Your task to perform on an android device: change the clock display to analog Image 0: 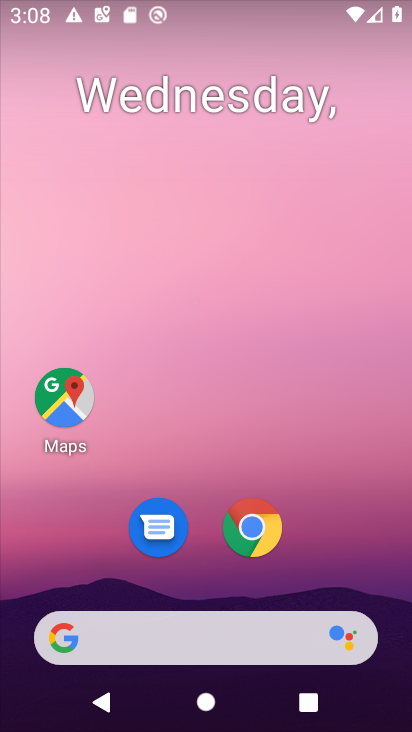
Step 0: drag from (329, 543) to (90, 40)
Your task to perform on an android device: change the clock display to analog Image 1: 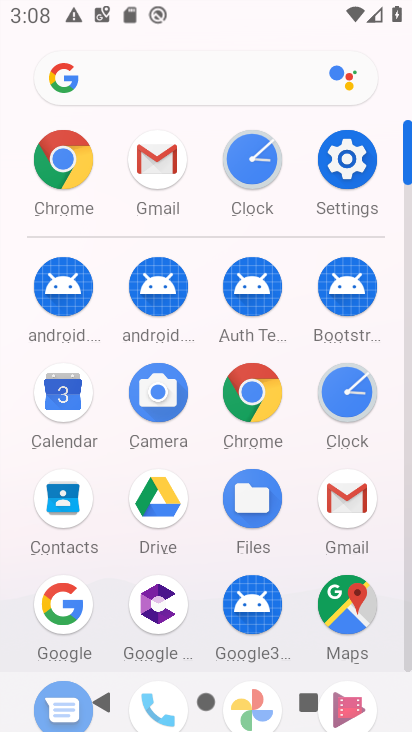
Step 1: click (342, 373)
Your task to perform on an android device: change the clock display to analog Image 2: 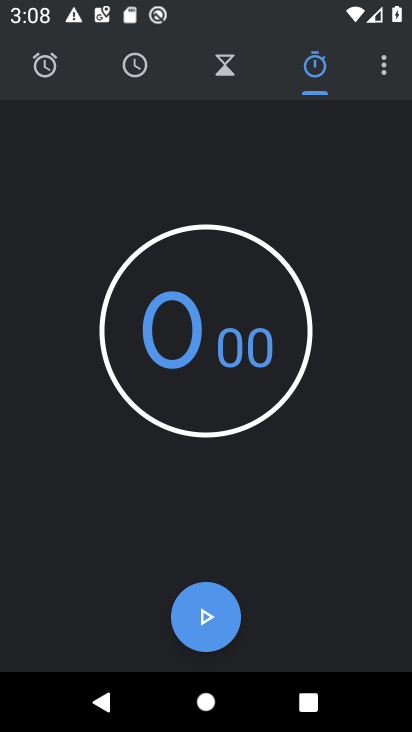
Step 2: click (378, 61)
Your task to perform on an android device: change the clock display to analog Image 3: 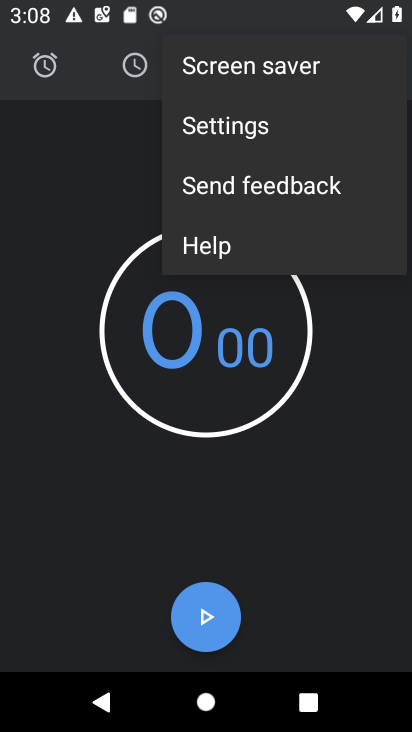
Step 3: click (268, 131)
Your task to perform on an android device: change the clock display to analog Image 4: 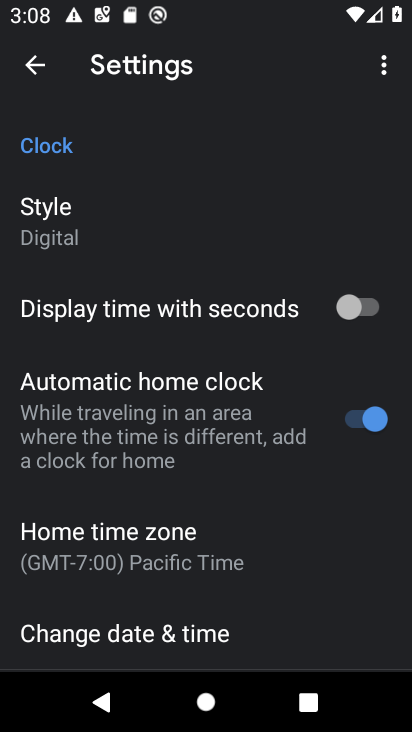
Step 4: click (71, 224)
Your task to perform on an android device: change the clock display to analog Image 5: 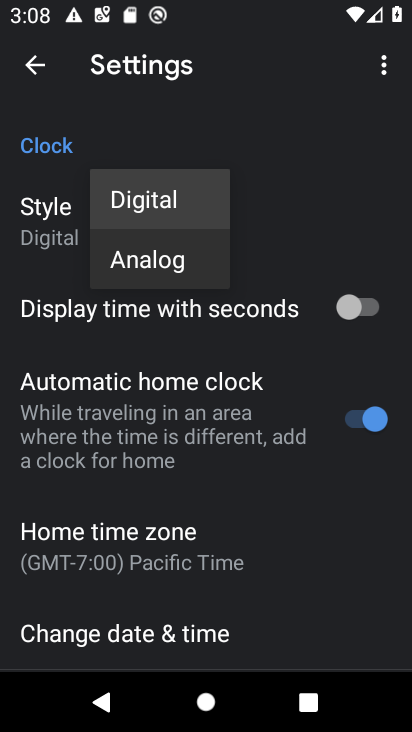
Step 5: click (127, 261)
Your task to perform on an android device: change the clock display to analog Image 6: 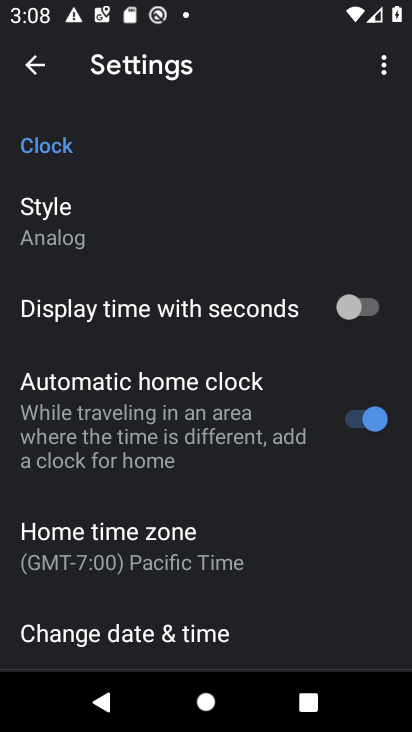
Step 6: task complete